Your task to perform on an android device: turn on improve location accuracy Image 0: 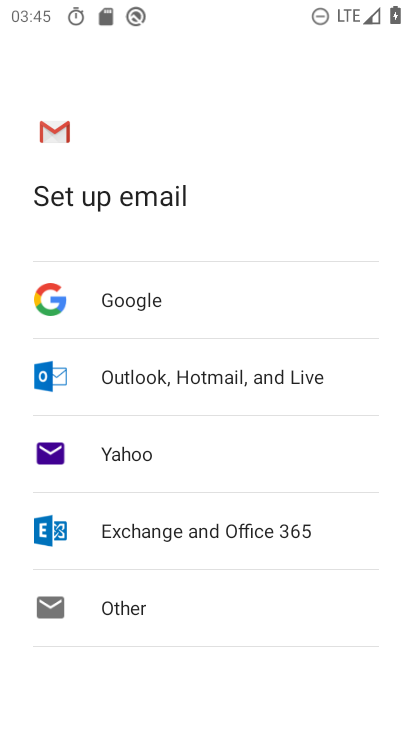
Step 0: press home button
Your task to perform on an android device: turn on improve location accuracy Image 1: 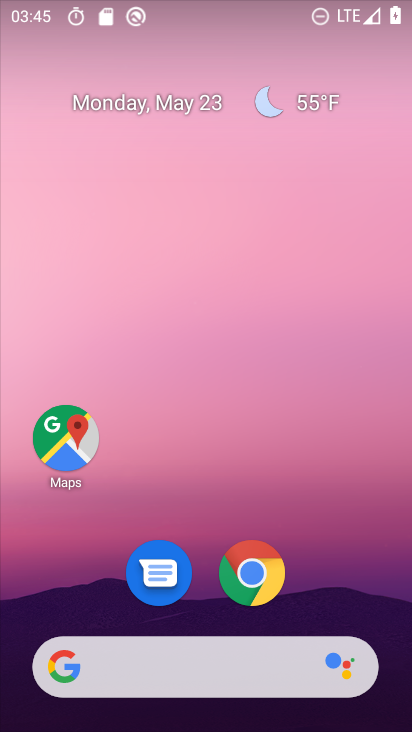
Step 1: drag from (323, 577) to (267, 82)
Your task to perform on an android device: turn on improve location accuracy Image 2: 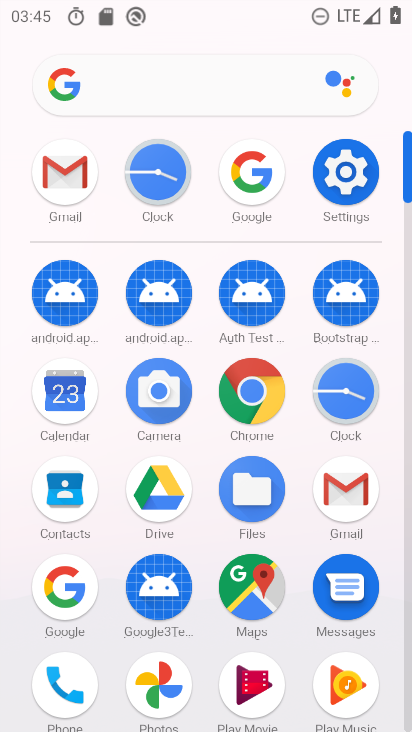
Step 2: click (347, 170)
Your task to perform on an android device: turn on improve location accuracy Image 3: 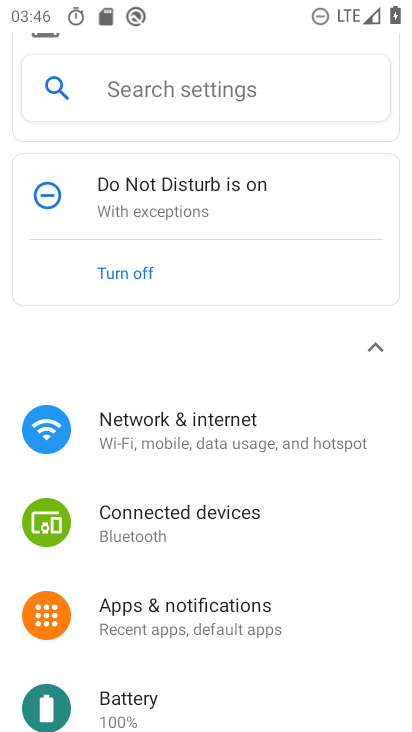
Step 3: drag from (276, 660) to (248, 226)
Your task to perform on an android device: turn on improve location accuracy Image 4: 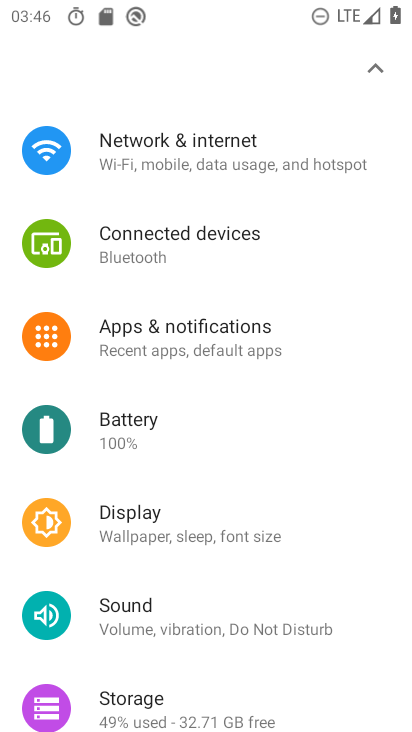
Step 4: drag from (282, 525) to (306, 255)
Your task to perform on an android device: turn on improve location accuracy Image 5: 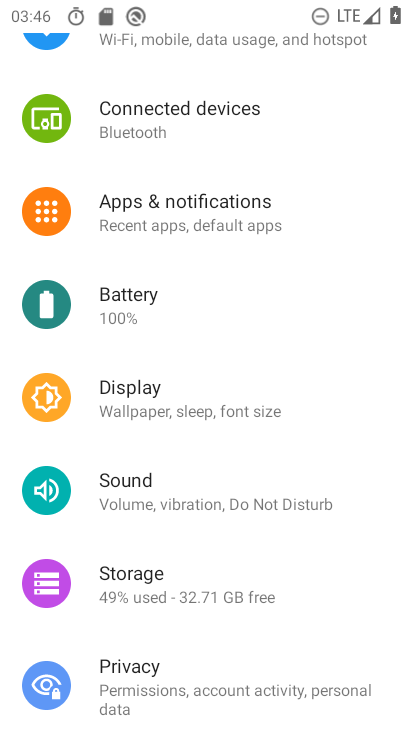
Step 5: drag from (239, 603) to (267, 282)
Your task to perform on an android device: turn on improve location accuracy Image 6: 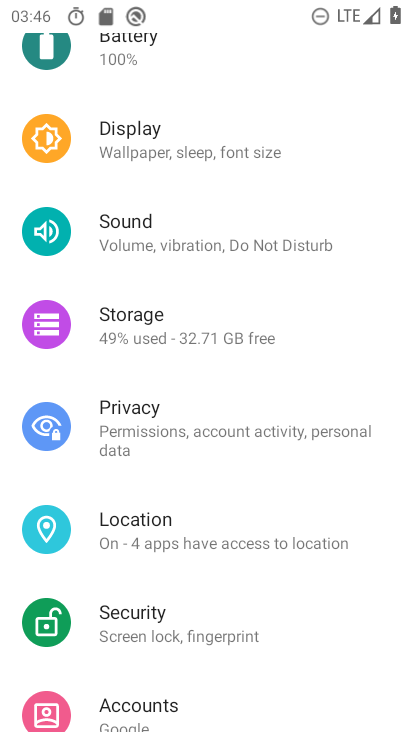
Step 6: click (176, 534)
Your task to perform on an android device: turn on improve location accuracy Image 7: 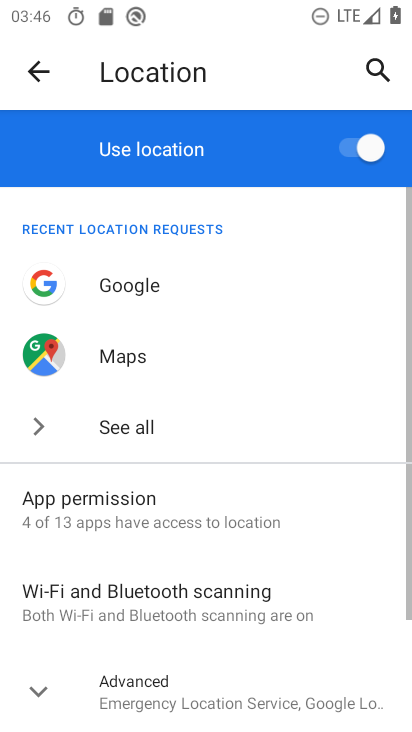
Step 7: drag from (294, 657) to (311, 242)
Your task to perform on an android device: turn on improve location accuracy Image 8: 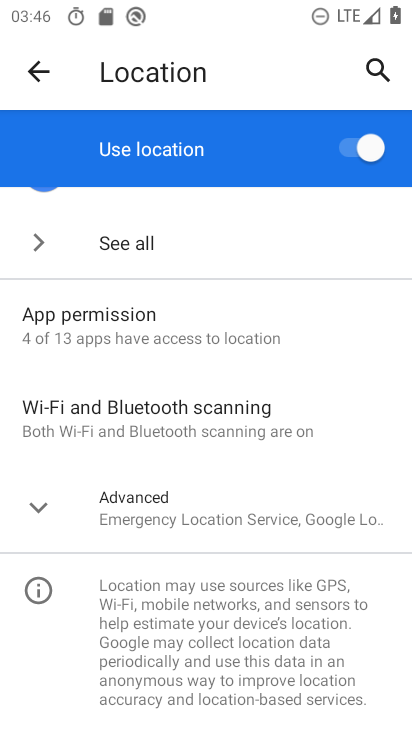
Step 8: click (220, 518)
Your task to perform on an android device: turn on improve location accuracy Image 9: 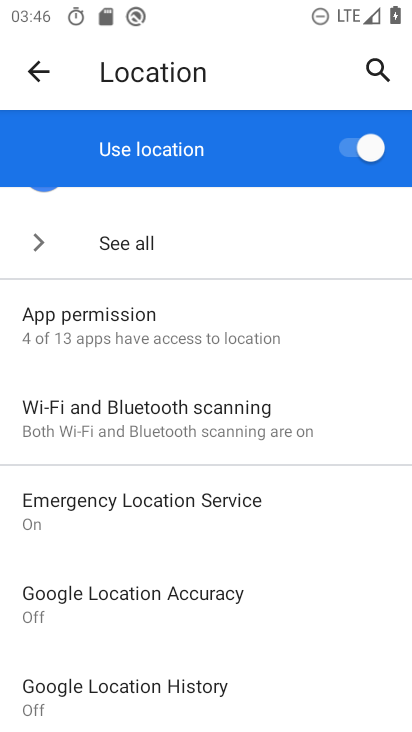
Step 9: click (192, 592)
Your task to perform on an android device: turn on improve location accuracy Image 10: 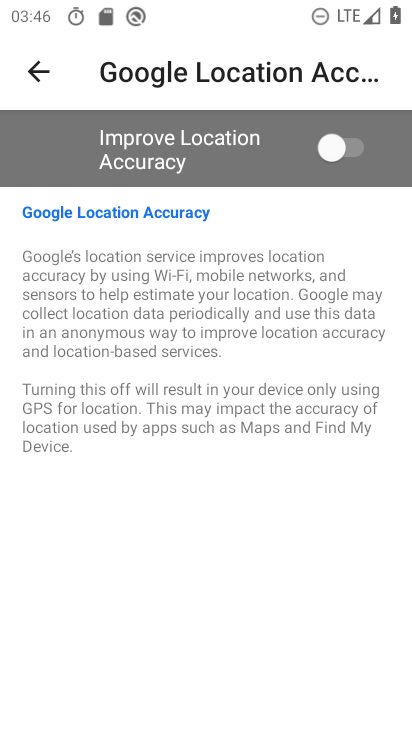
Step 10: click (348, 148)
Your task to perform on an android device: turn on improve location accuracy Image 11: 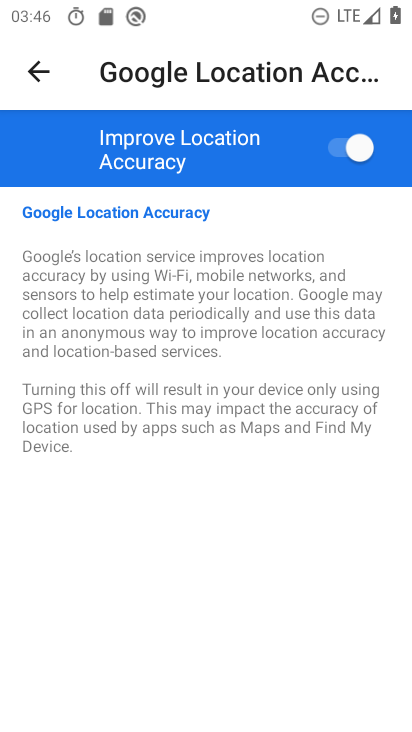
Step 11: task complete